Your task to perform on an android device: Play the last video I watched on Youtube Image 0: 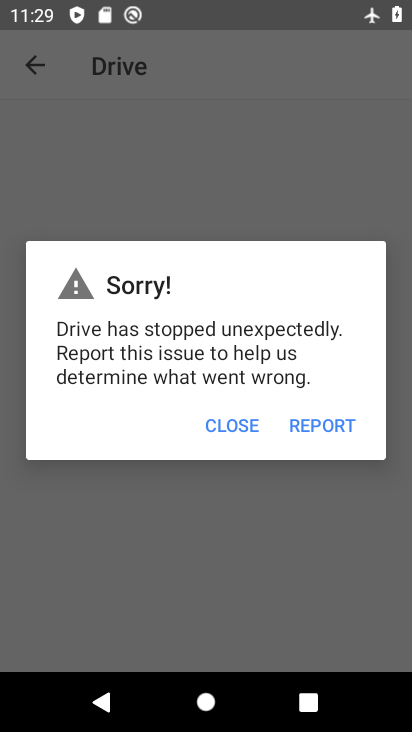
Step 0: press home button
Your task to perform on an android device: Play the last video I watched on Youtube Image 1: 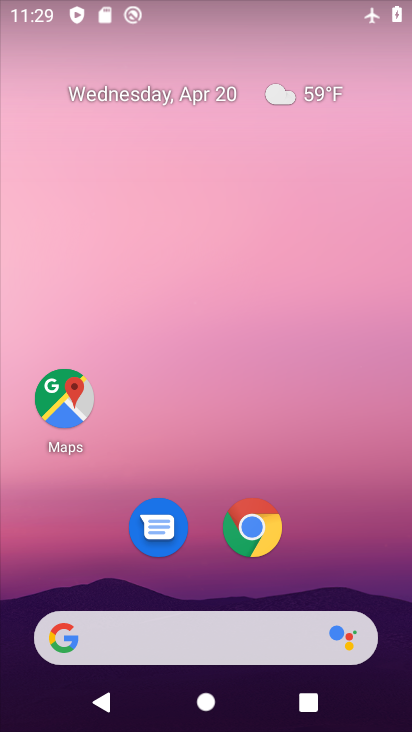
Step 1: drag from (369, 562) to (340, 187)
Your task to perform on an android device: Play the last video I watched on Youtube Image 2: 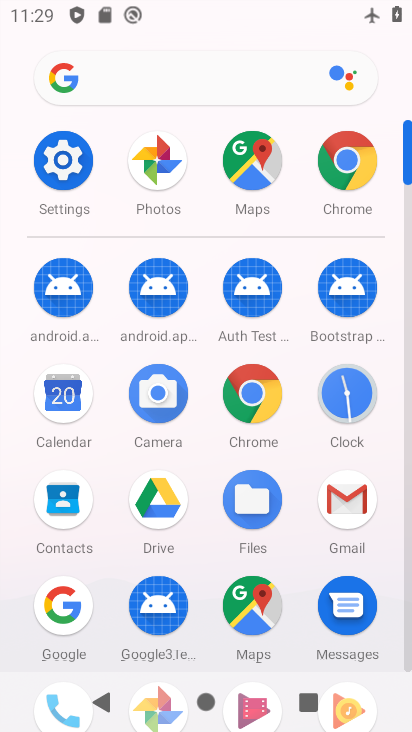
Step 2: drag from (304, 543) to (292, 208)
Your task to perform on an android device: Play the last video I watched on Youtube Image 3: 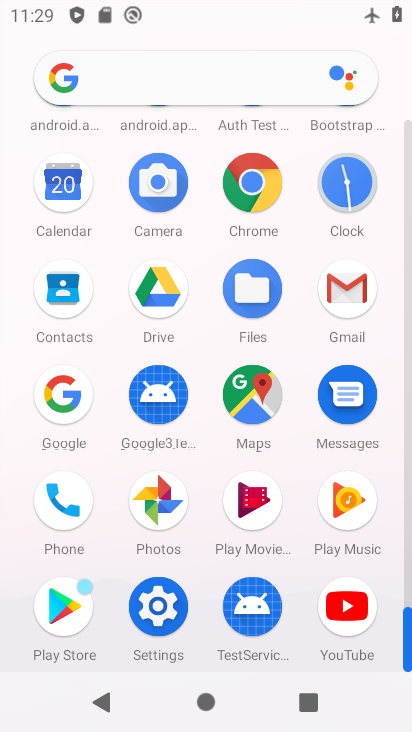
Step 3: click (342, 633)
Your task to perform on an android device: Play the last video I watched on Youtube Image 4: 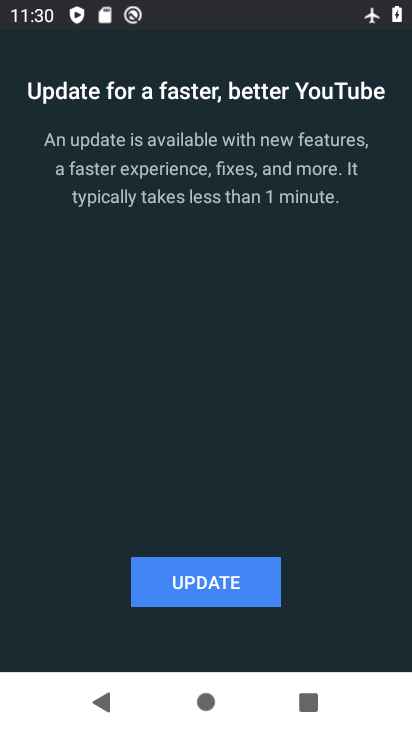
Step 4: click (240, 601)
Your task to perform on an android device: Play the last video I watched on Youtube Image 5: 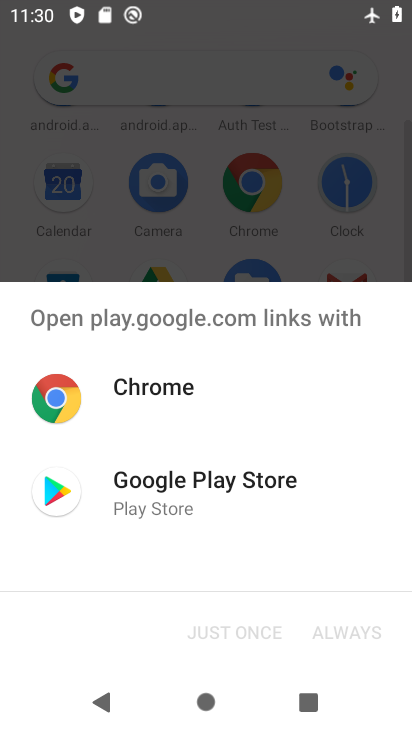
Step 5: click (213, 505)
Your task to perform on an android device: Play the last video I watched on Youtube Image 6: 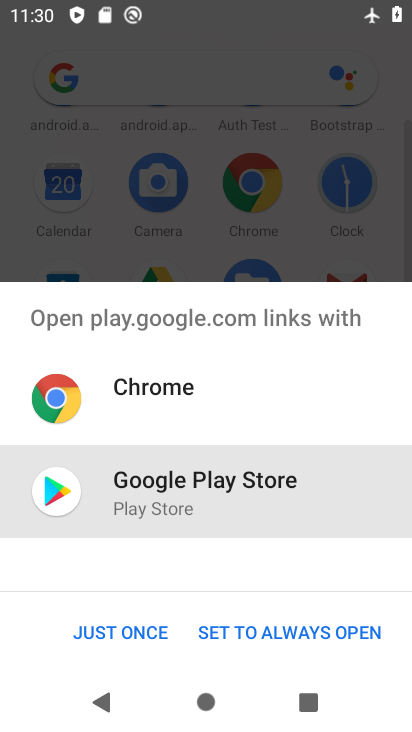
Step 6: click (133, 637)
Your task to perform on an android device: Play the last video I watched on Youtube Image 7: 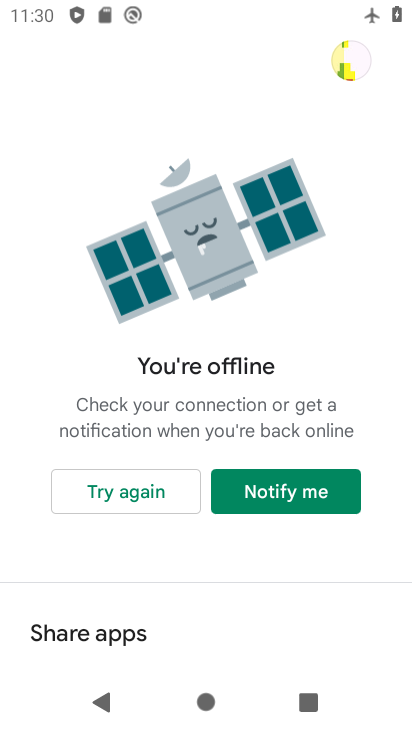
Step 7: task complete